Your task to perform on an android device: Open calendar and show me the third week of next month Image 0: 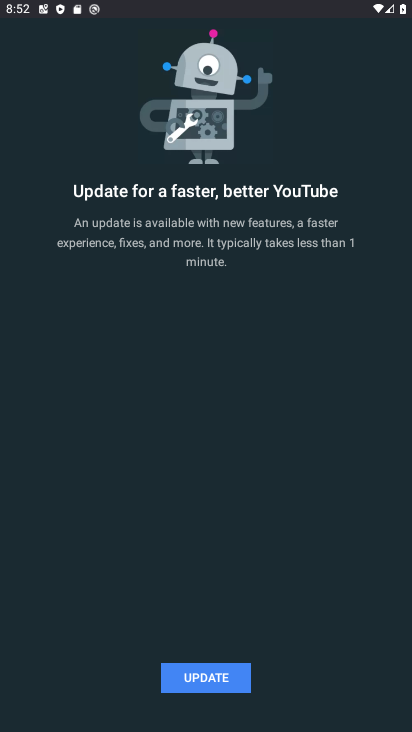
Step 0: press home button
Your task to perform on an android device: Open calendar and show me the third week of next month Image 1: 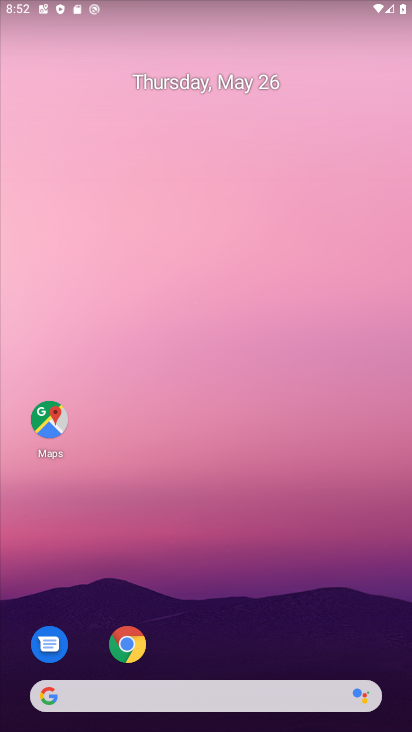
Step 1: drag from (175, 615) to (249, 165)
Your task to perform on an android device: Open calendar and show me the third week of next month Image 2: 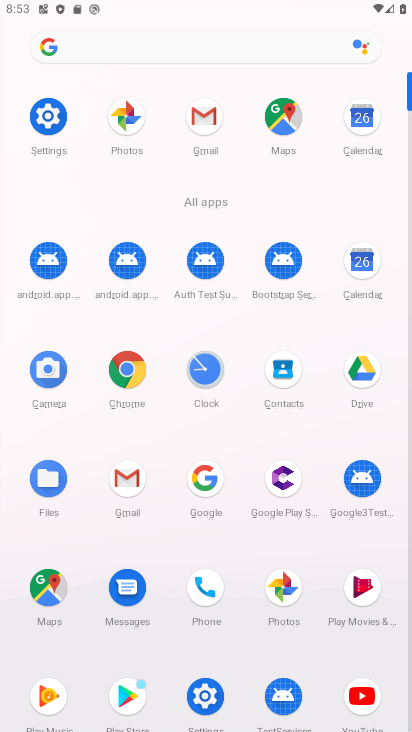
Step 2: click (359, 270)
Your task to perform on an android device: Open calendar and show me the third week of next month Image 3: 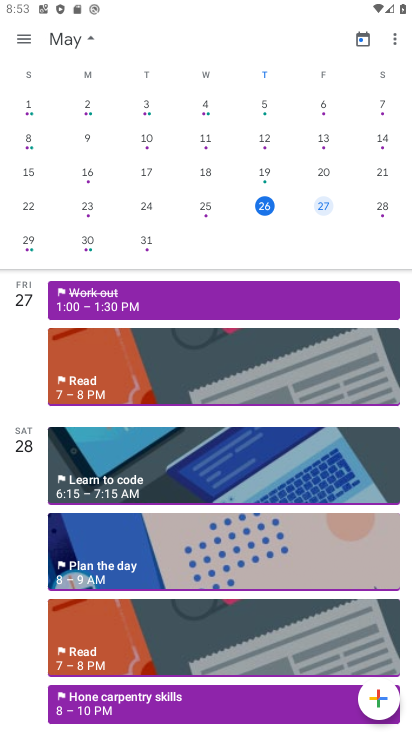
Step 3: drag from (395, 186) to (98, 148)
Your task to perform on an android device: Open calendar and show me the third week of next month Image 4: 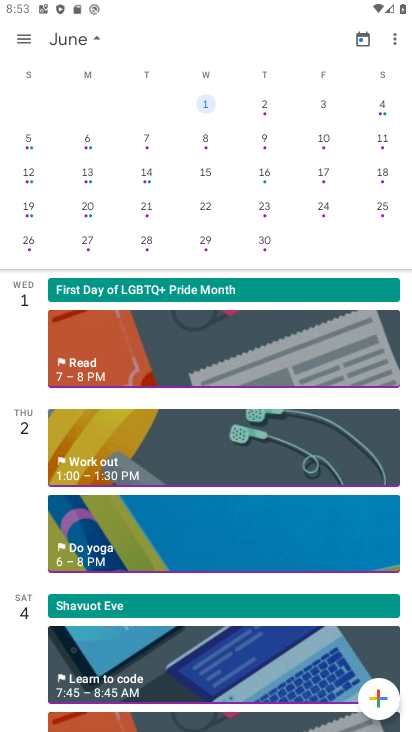
Step 4: click (89, 173)
Your task to perform on an android device: Open calendar and show me the third week of next month Image 5: 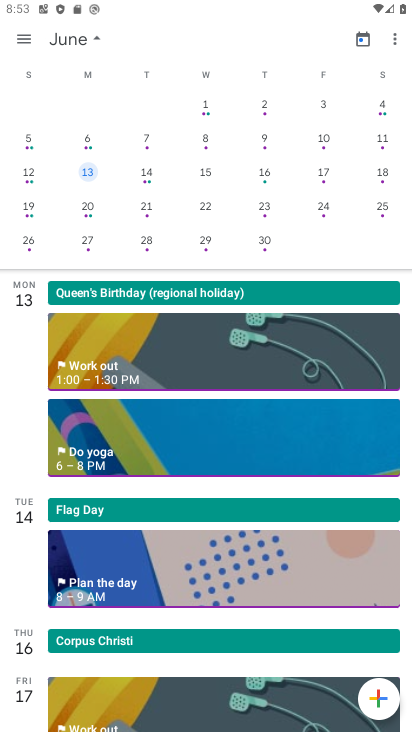
Step 5: task complete